Your task to perform on an android device: change the upload size in google photos Image 0: 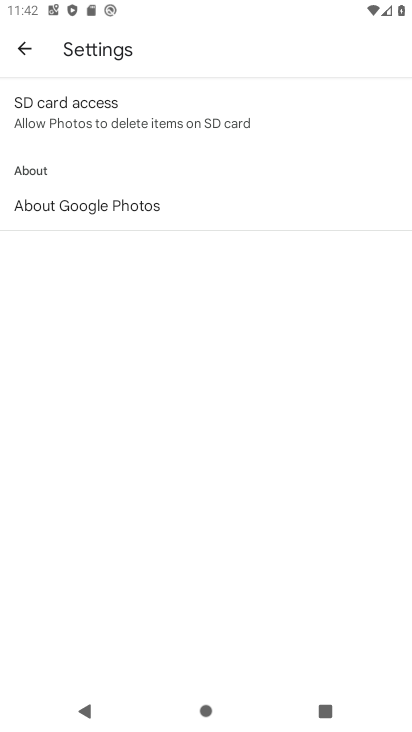
Step 0: press home button
Your task to perform on an android device: change the upload size in google photos Image 1: 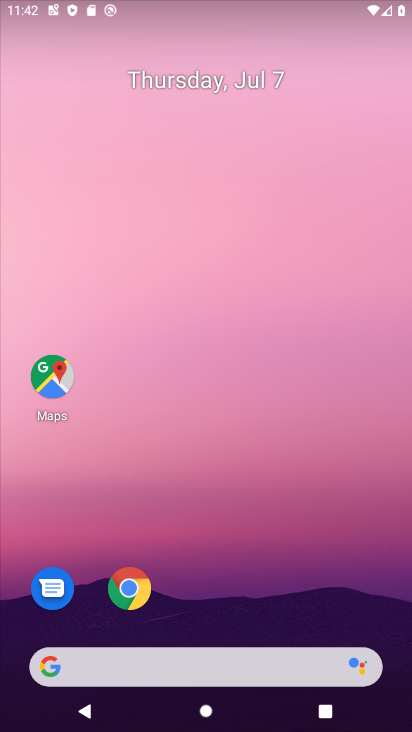
Step 1: drag from (244, 610) to (236, 106)
Your task to perform on an android device: change the upload size in google photos Image 2: 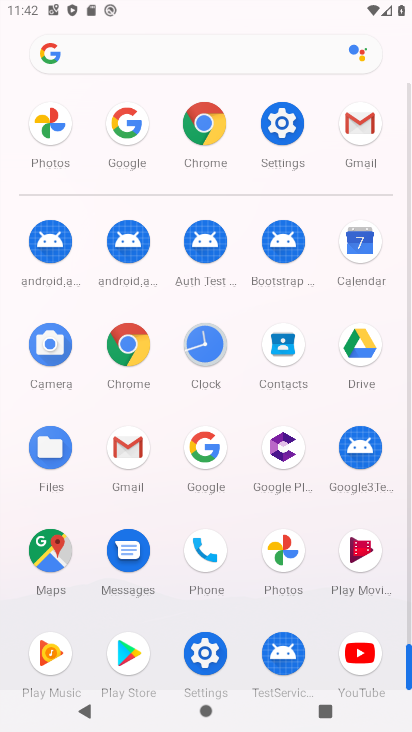
Step 2: click (51, 123)
Your task to perform on an android device: change the upload size in google photos Image 3: 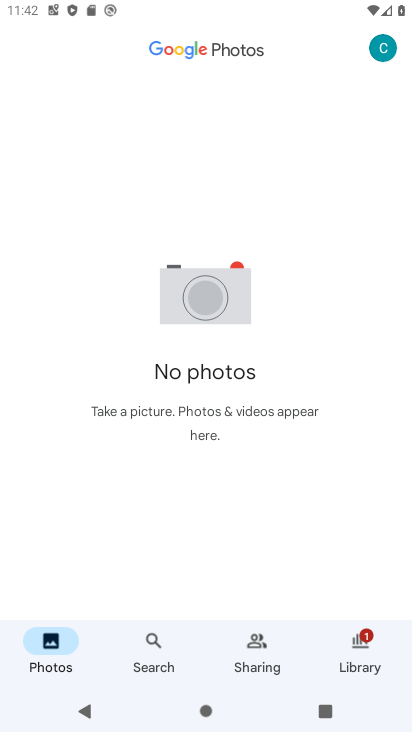
Step 3: click (381, 52)
Your task to perform on an android device: change the upload size in google photos Image 4: 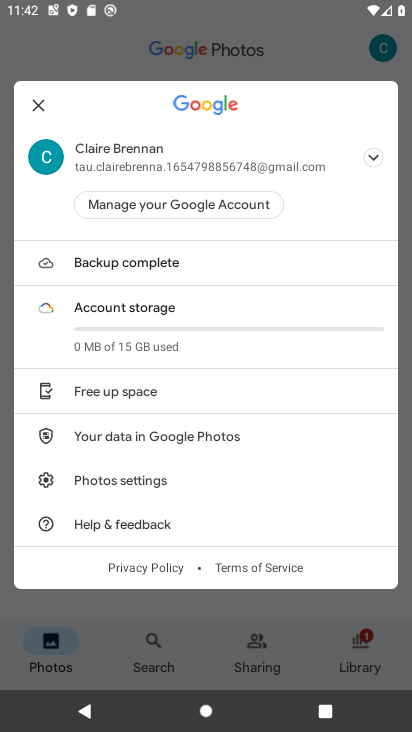
Step 4: click (148, 480)
Your task to perform on an android device: change the upload size in google photos Image 5: 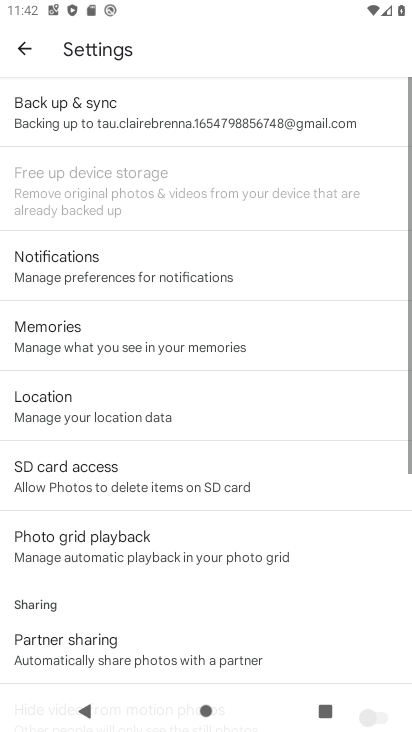
Step 5: click (133, 117)
Your task to perform on an android device: change the upload size in google photos Image 6: 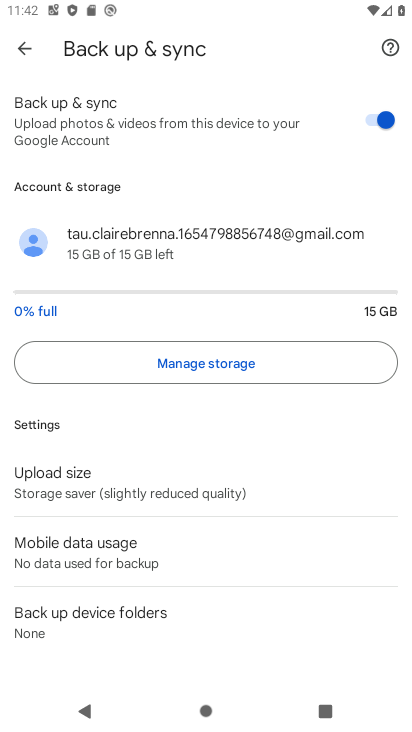
Step 6: click (91, 477)
Your task to perform on an android device: change the upload size in google photos Image 7: 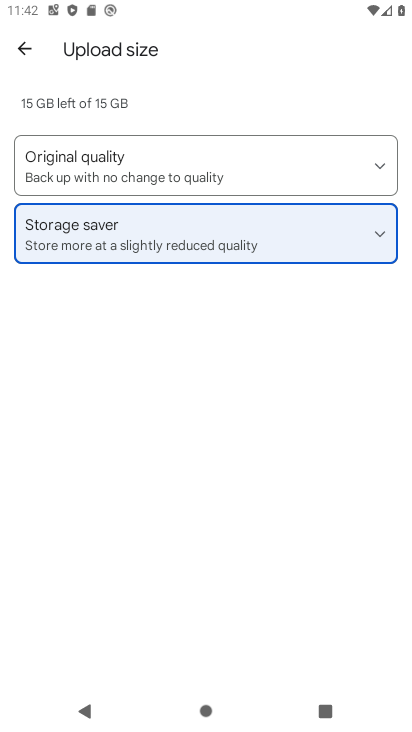
Step 7: click (92, 166)
Your task to perform on an android device: change the upload size in google photos Image 8: 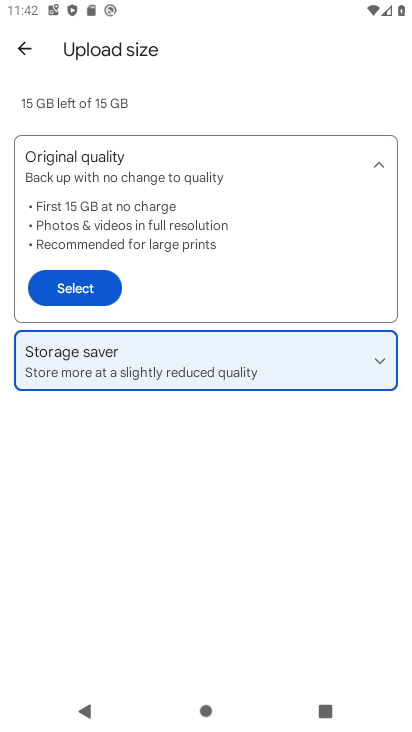
Step 8: click (91, 273)
Your task to perform on an android device: change the upload size in google photos Image 9: 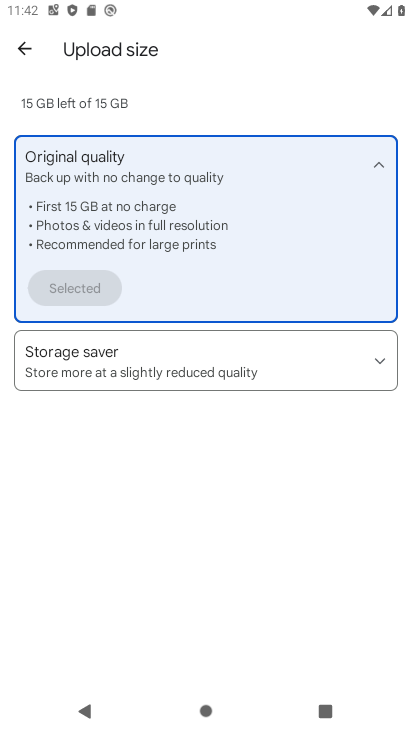
Step 9: task complete